Your task to perform on an android device: Open network settings Image 0: 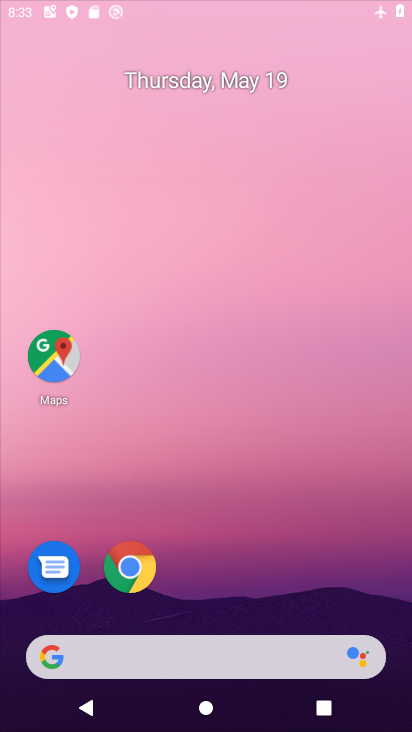
Step 0: press home button
Your task to perform on an android device: Open network settings Image 1: 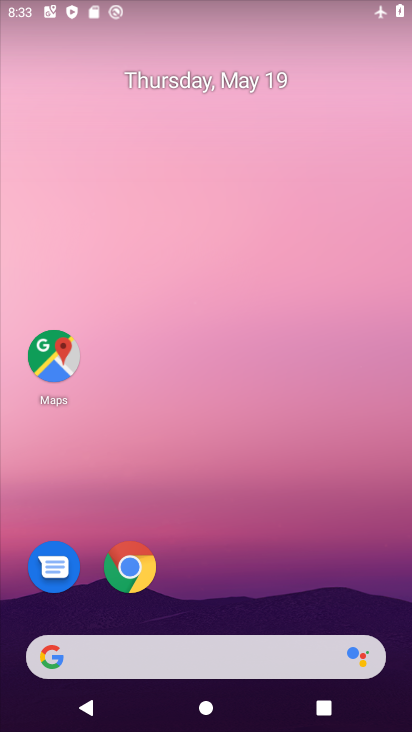
Step 1: drag from (245, 599) to (276, 74)
Your task to perform on an android device: Open network settings Image 2: 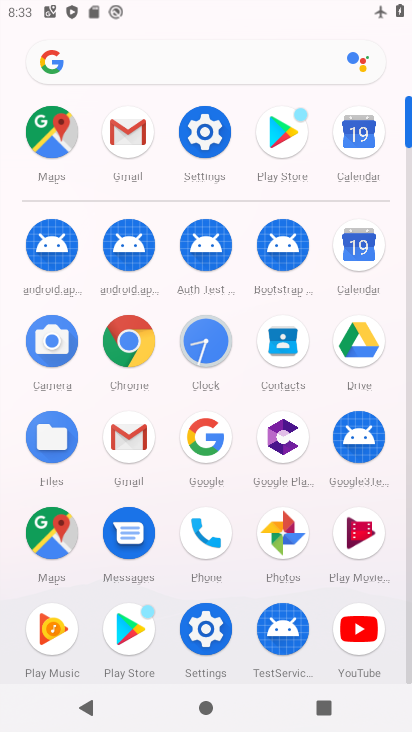
Step 2: click (204, 150)
Your task to perform on an android device: Open network settings Image 3: 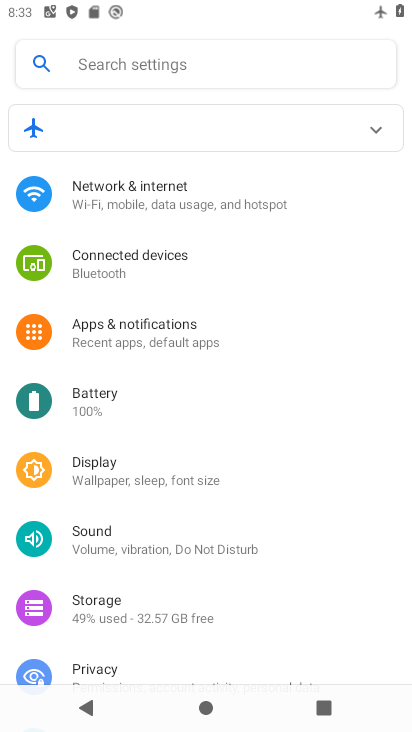
Step 3: click (160, 192)
Your task to perform on an android device: Open network settings Image 4: 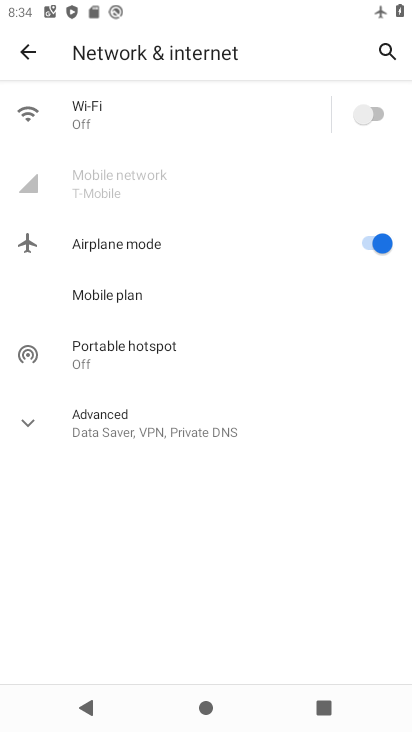
Step 4: task complete